Your task to perform on an android device: stop showing notifications on the lock screen Image 0: 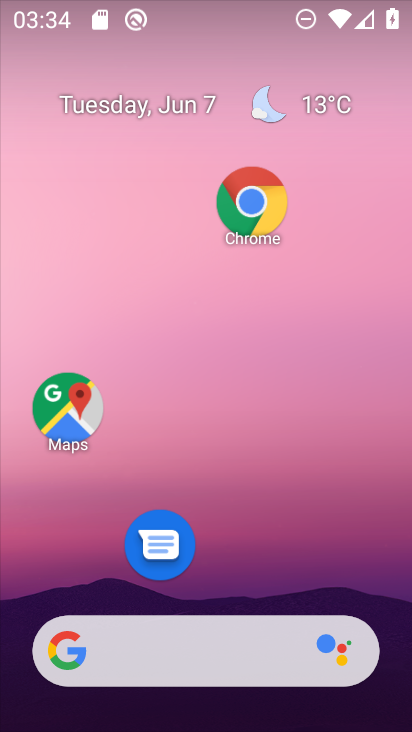
Step 0: drag from (312, 558) to (295, 185)
Your task to perform on an android device: stop showing notifications on the lock screen Image 1: 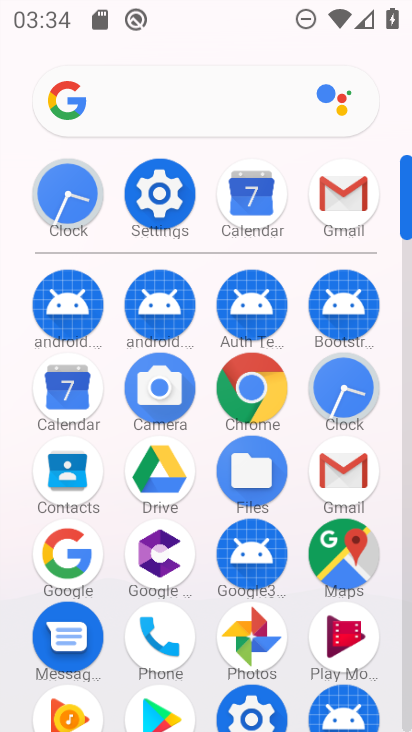
Step 1: click (152, 189)
Your task to perform on an android device: stop showing notifications on the lock screen Image 2: 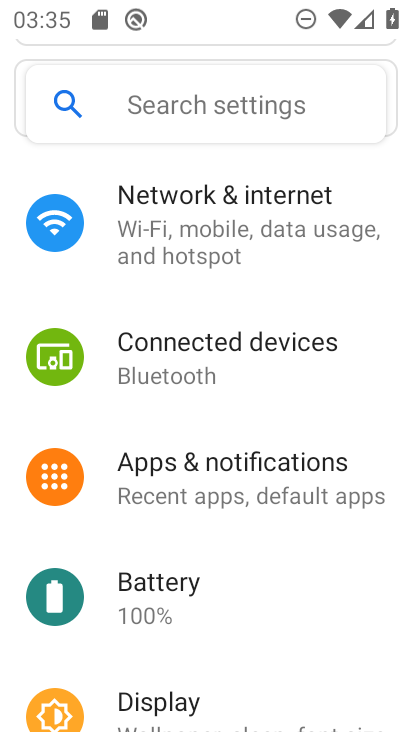
Step 2: click (208, 461)
Your task to perform on an android device: stop showing notifications on the lock screen Image 3: 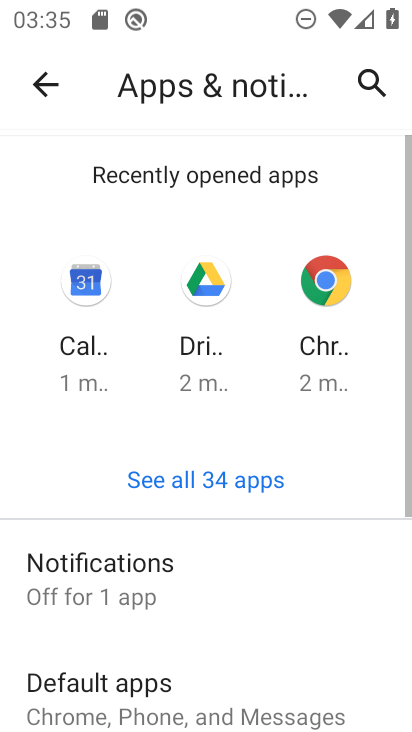
Step 3: drag from (231, 590) to (267, 298)
Your task to perform on an android device: stop showing notifications on the lock screen Image 4: 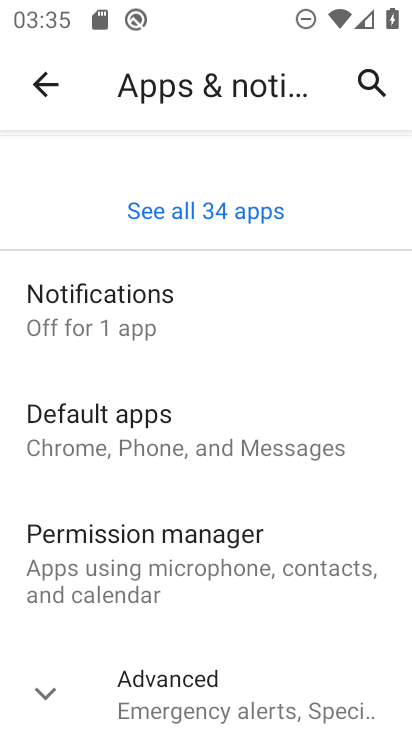
Step 4: click (159, 309)
Your task to perform on an android device: stop showing notifications on the lock screen Image 5: 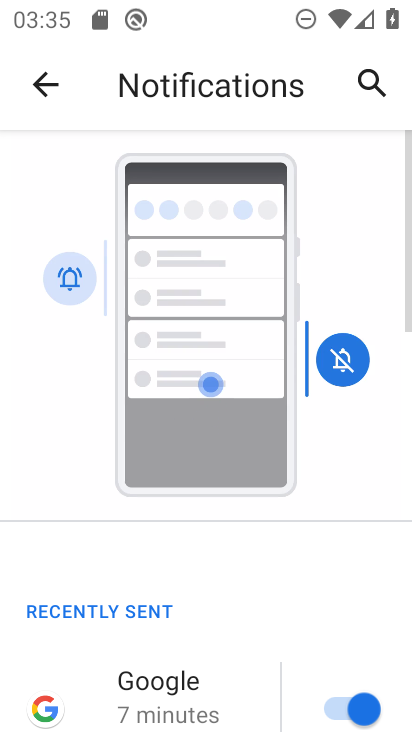
Step 5: drag from (223, 648) to (221, 295)
Your task to perform on an android device: stop showing notifications on the lock screen Image 6: 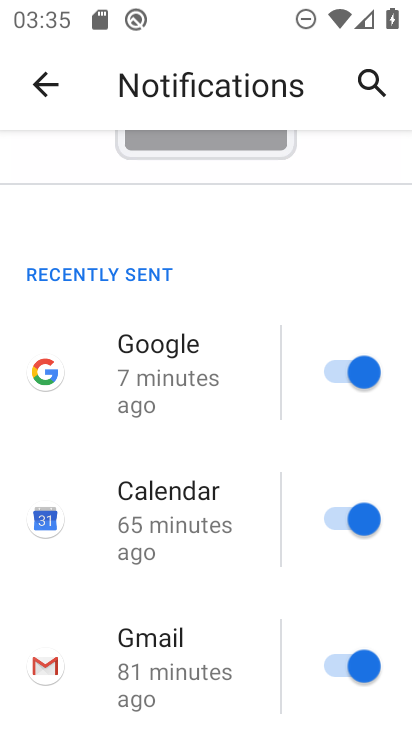
Step 6: drag from (166, 553) to (227, 185)
Your task to perform on an android device: stop showing notifications on the lock screen Image 7: 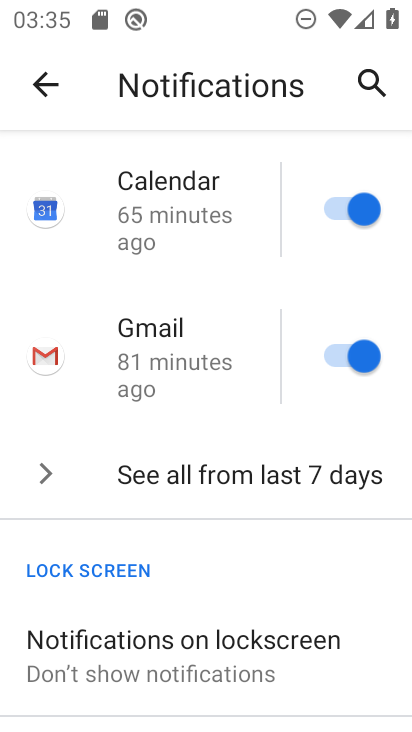
Step 7: drag from (166, 599) to (202, 342)
Your task to perform on an android device: stop showing notifications on the lock screen Image 8: 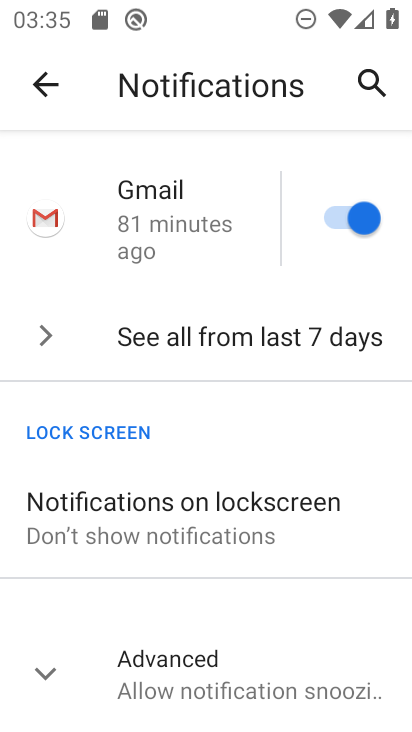
Step 8: click (146, 501)
Your task to perform on an android device: stop showing notifications on the lock screen Image 9: 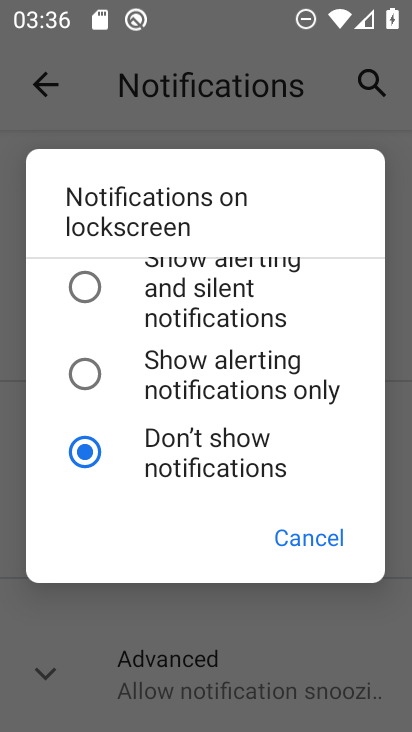
Step 9: task complete